Your task to perform on an android device: Search for Mexican restaurants on Maps Image 0: 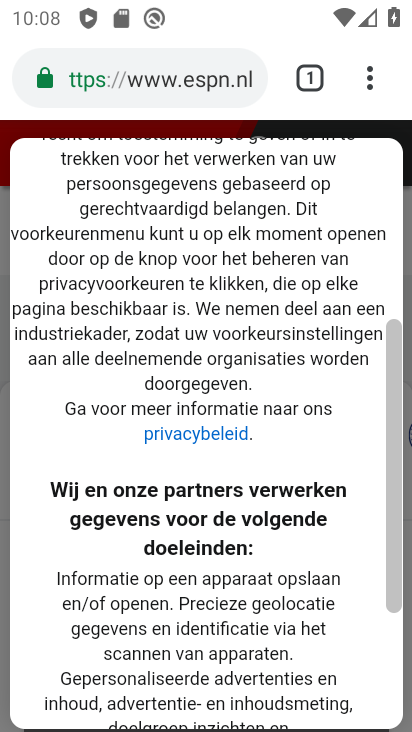
Step 0: press home button
Your task to perform on an android device: Search for Mexican restaurants on Maps Image 1: 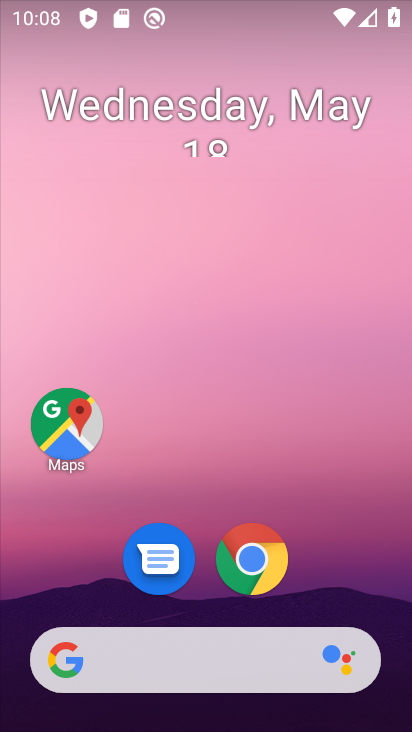
Step 1: click (65, 421)
Your task to perform on an android device: Search for Mexican restaurants on Maps Image 2: 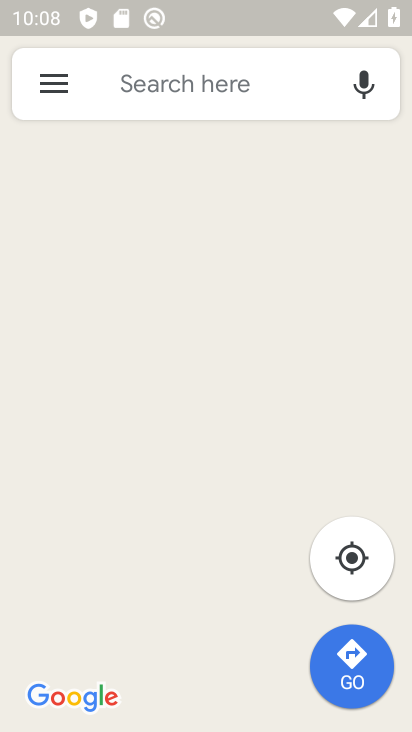
Step 2: click (186, 84)
Your task to perform on an android device: Search for Mexican restaurants on Maps Image 3: 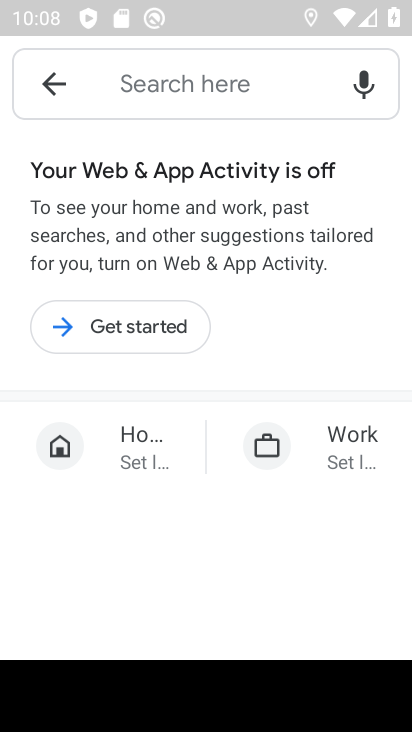
Step 3: type "Mexican restaurants"
Your task to perform on an android device: Search for Mexican restaurants on Maps Image 4: 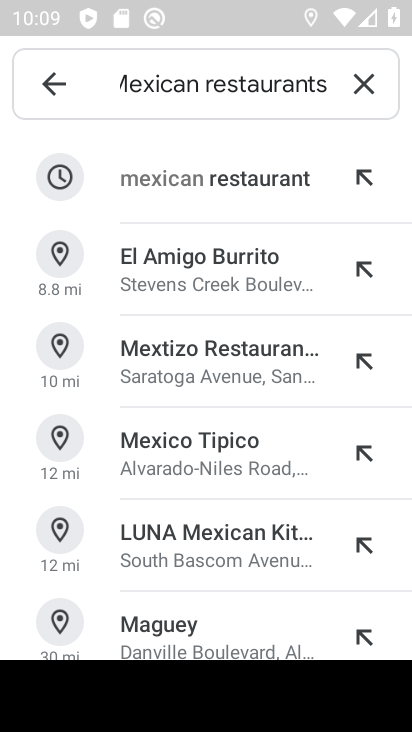
Step 4: click (223, 177)
Your task to perform on an android device: Search for Mexican restaurants on Maps Image 5: 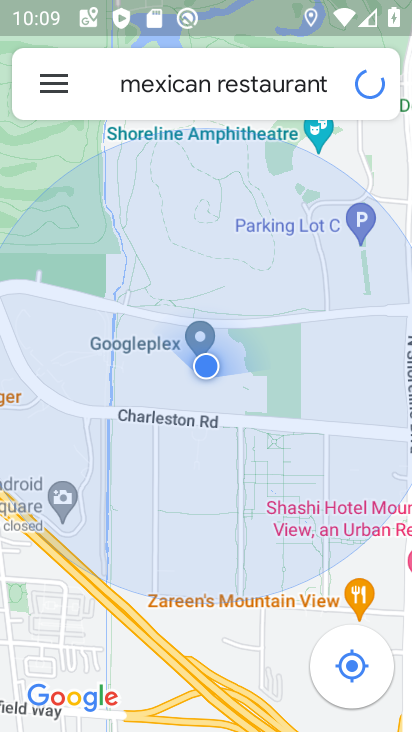
Step 5: task complete